Your task to perform on an android device: open device folders in google photos Image 0: 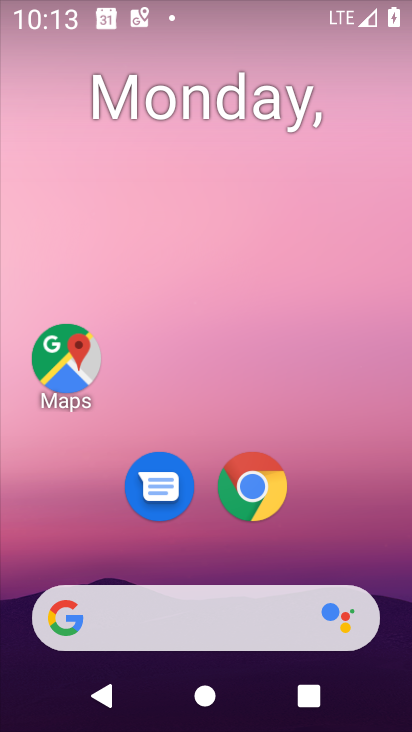
Step 0: drag from (377, 569) to (287, 12)
Your task to perform on an android device: open device folders in google photos Image 1: 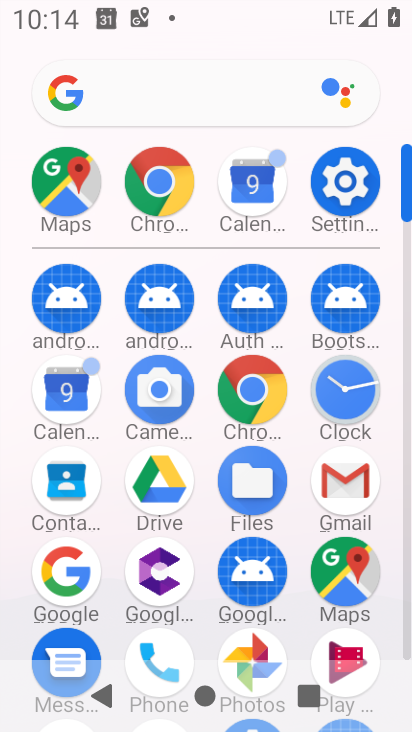
Step 1: drag from (3, 590) to (25, 198)
Your task to perform on an android device: open device folders in google photos Image 2: 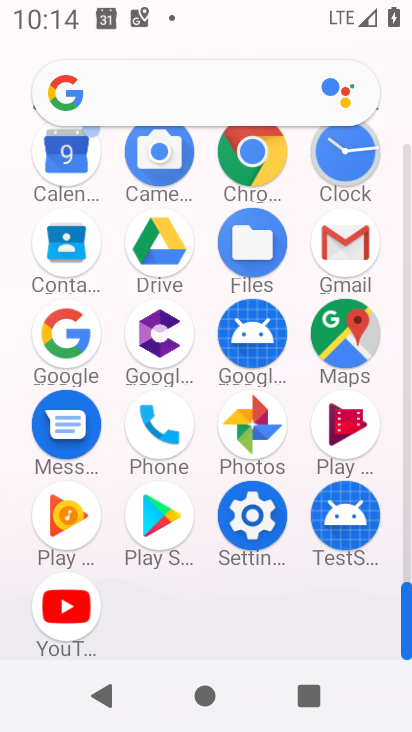
Step 2: drag from (20, 321) to (10, 530)
Your task to perform on an android device: open device folders in google photos Image 3: 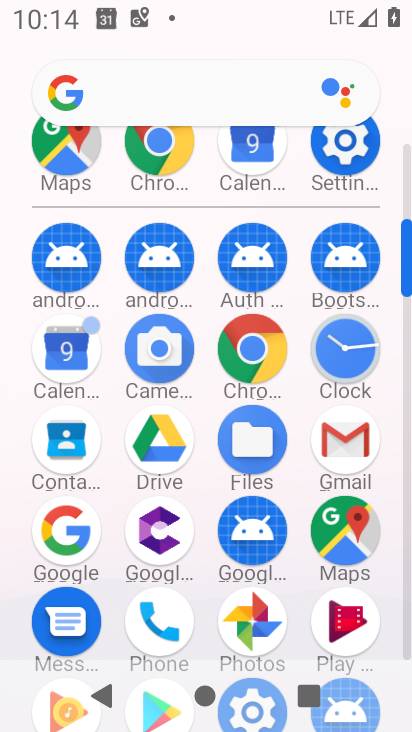
Step 3: drag from (12, 199) to (1, 585)
Your task to perform on an android device: open device folders in google photos Image 4: 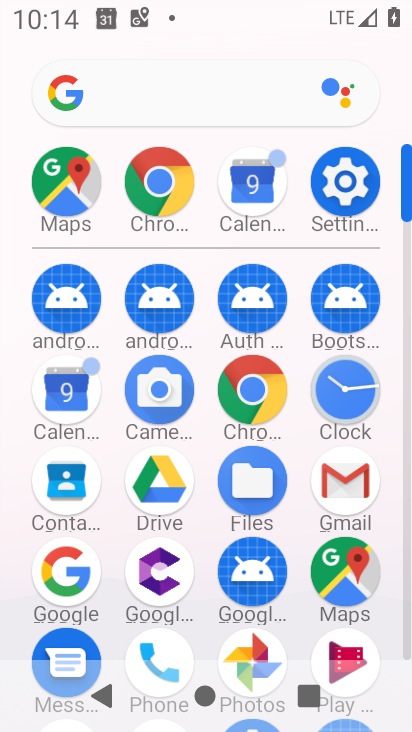
Step 4: drag from (20, 539) to (18, 219)
Your task to perform on an android device: open device folders in google photos Image 5: 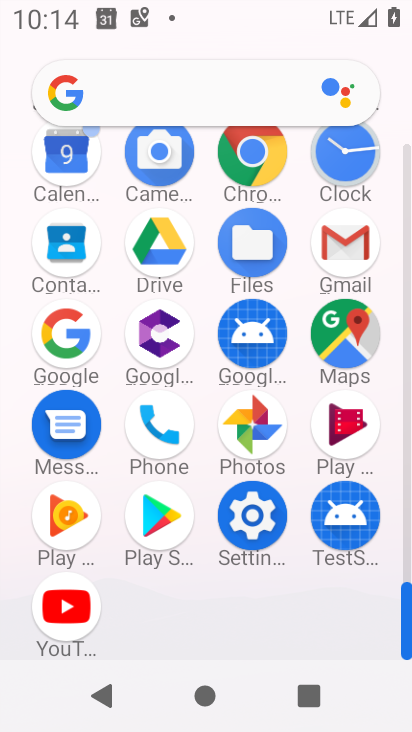
Step 5: click (250, 417)
Your task to perform on an android device: open device folders in google photos Image 6: 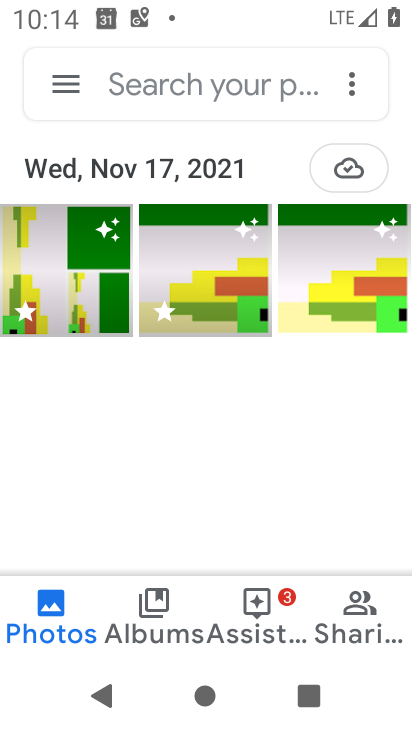
Step 6: click (58, 81)
Your task to perform on an android device: open device folders in google photos Image 7: 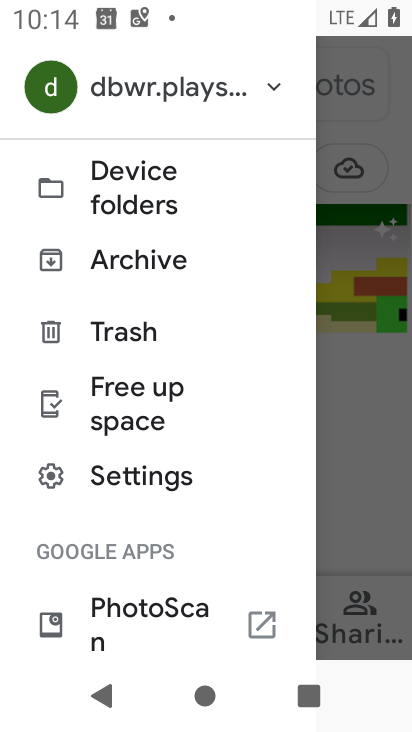
Step 7: click (143, 185)
Your task to perform on an android device: open device folders in google photos Image 8: 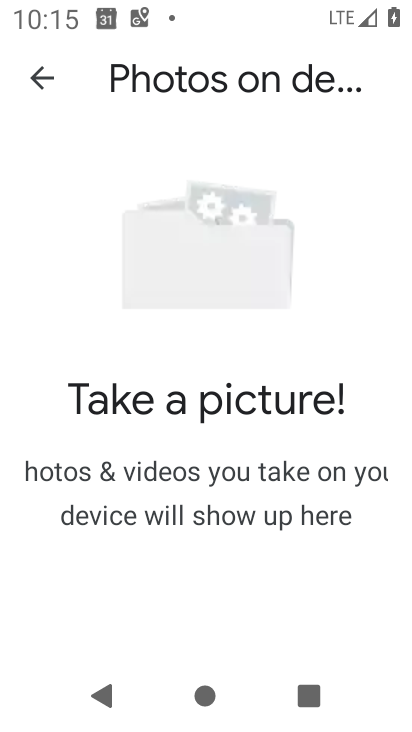
Step 8: task complete